Your task to perform on an android device: delete location history Image 0: 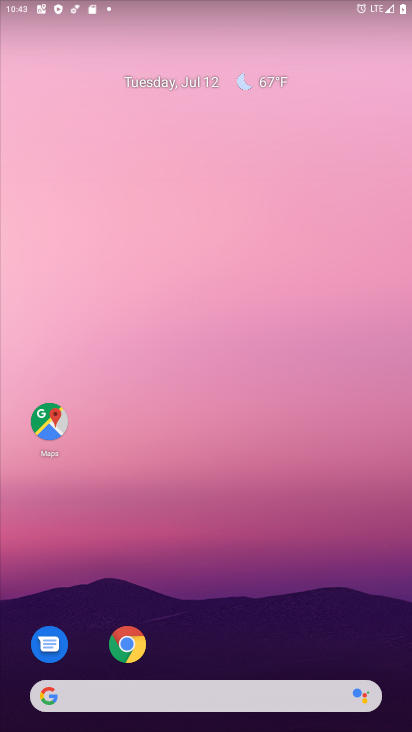
Step 0: click (197, 213)
Your task to perform on an android device: delete location history Image 1: 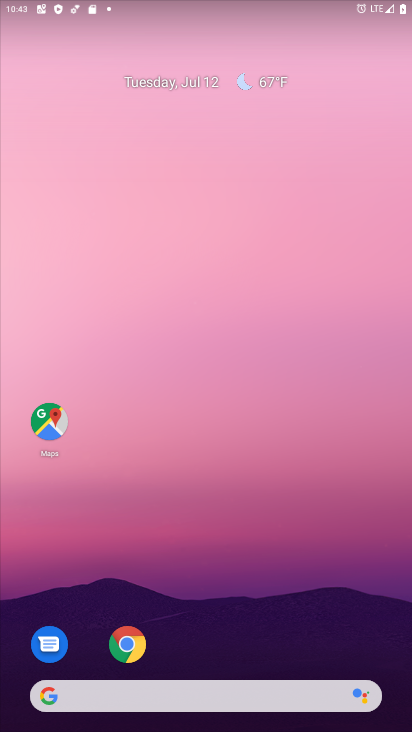
Step 1: drag from (191, 640) to (228, 302)
Your task to perform on an android device: delete location history Image 2: 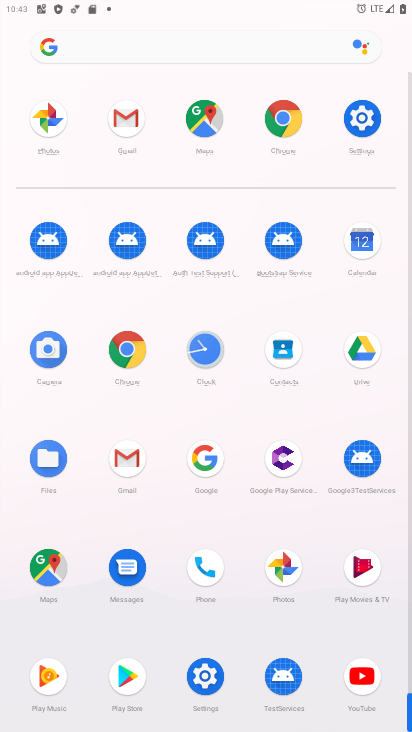
Step 2: click (198, 666)
Your task to perform on an android device: delete location history Image 3: 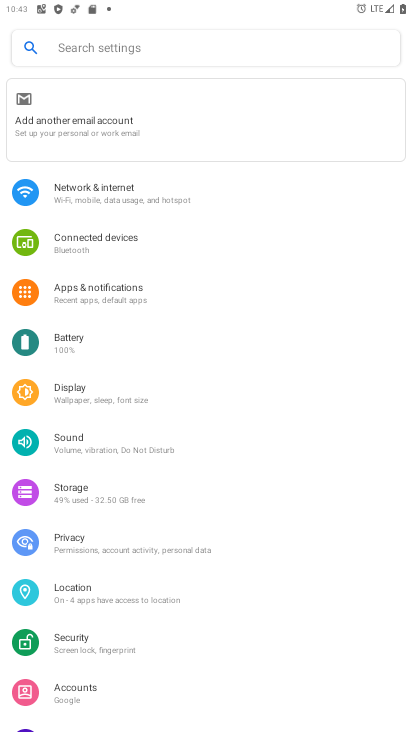
Step 3: click (86, 594)
Your task to perform on an android device: delete location history Image 4: 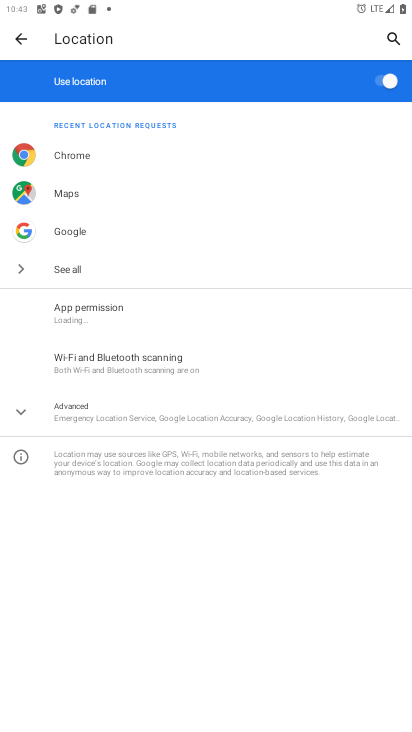
Step 4: drag from (202, 614) to (210, 369)
Your task to perform on an android device: delete location history Image 5: 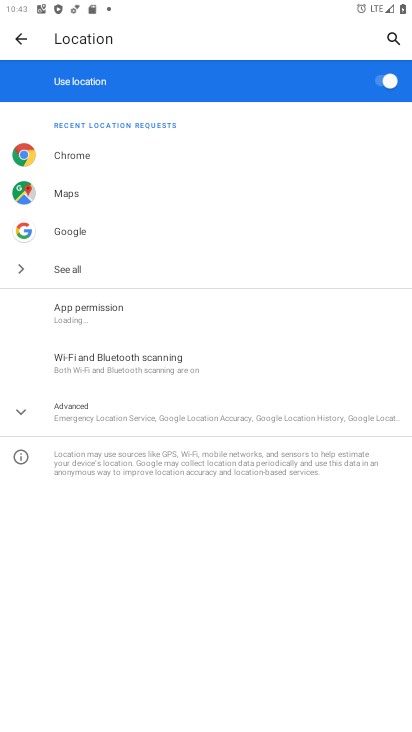
Step 5: click (83, 428)
Your task to perform on an android device: delete location history Image 6: 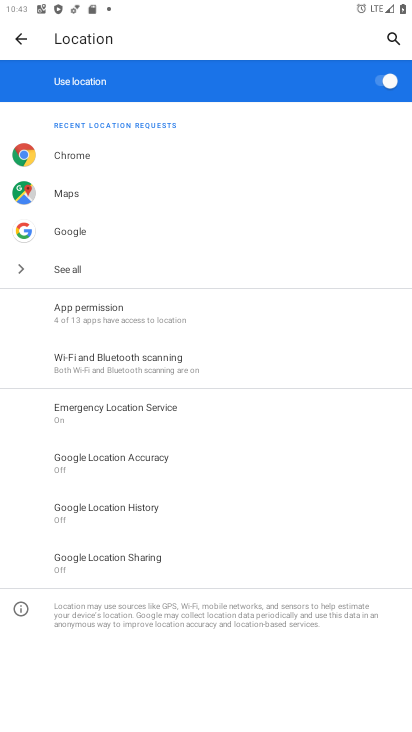
Step 6: click (157, 503)
Your task to perform on an android device: delete location history Image 7: 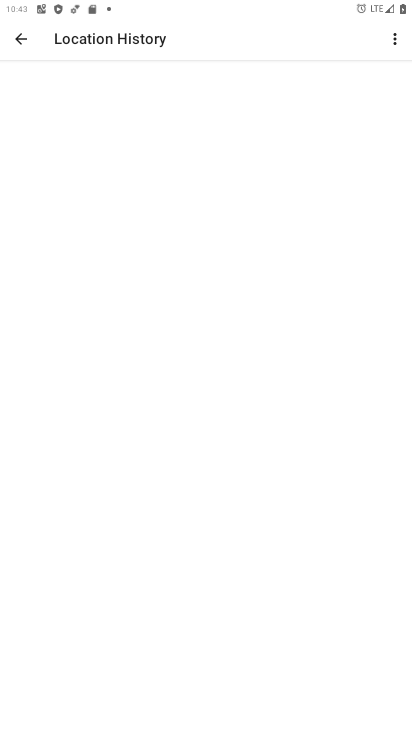
Step 7: drag from (210, 493) to (264, 203)
Your task to perform on an android device: delete location history Image 8: 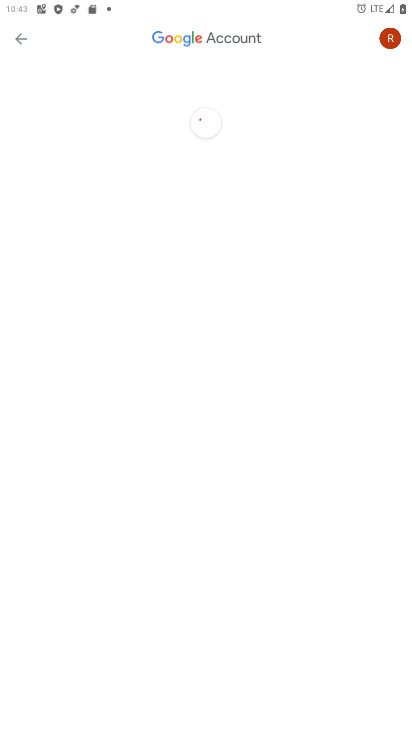
Step 8: drag from (267, 481) to (283, 288)
Your task to perform on an android device: delete location history Image 9: 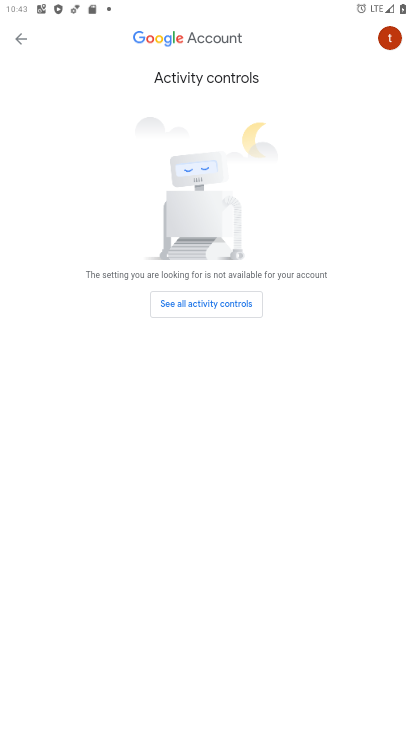
Step 9: drag from (212, 474) to (309, 327)
Your task to perform on an android device: delete location history Image 10: 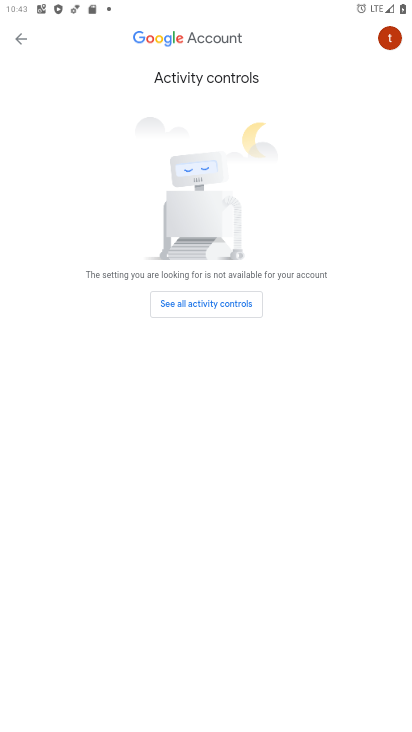
Step 10: click (195, 301)
Your task to perform on an android device: delete location history Image 11: 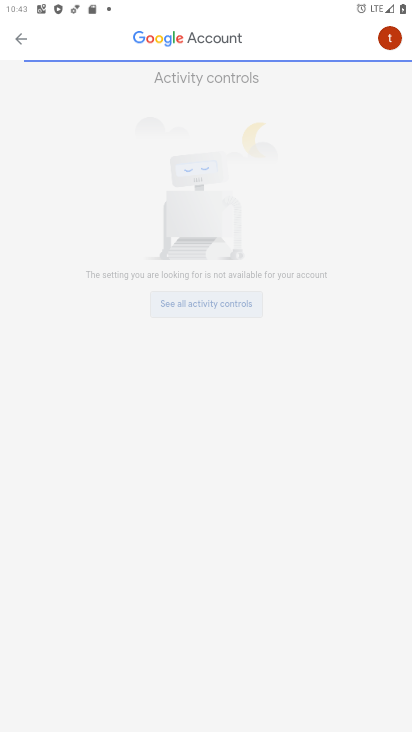
Step 11: drag from (234, 579) to (255, 119)
Your task to perform on an android device: delete location history Image 12: 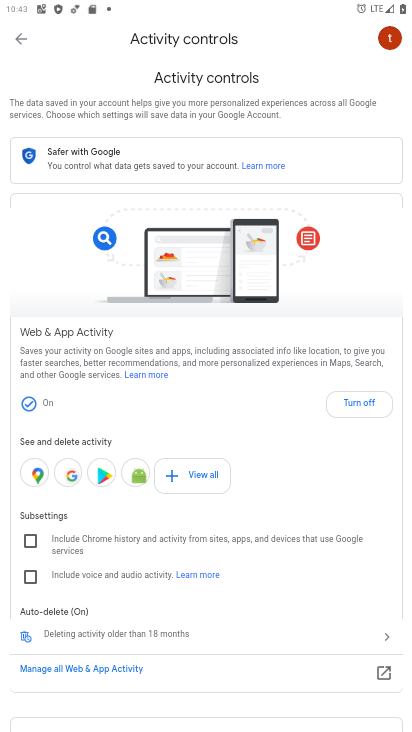
Step 12: drag from (209, 541) to (295, 114)
Your task to perform on an android device: delete location history Image 13: 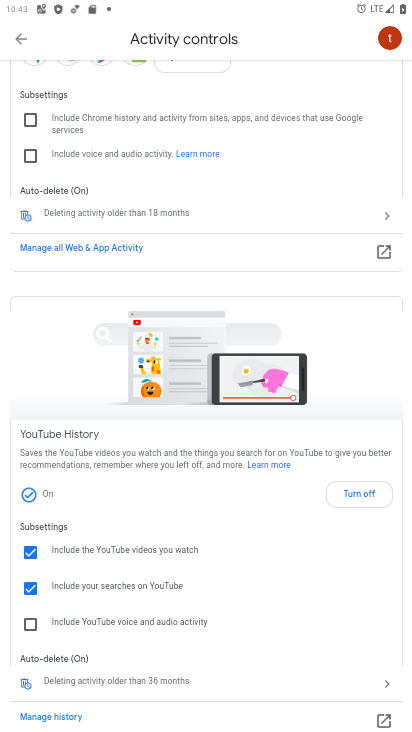
Step 13: click (49, 684)
Your task to perform on an android device: delete location history Image 14: 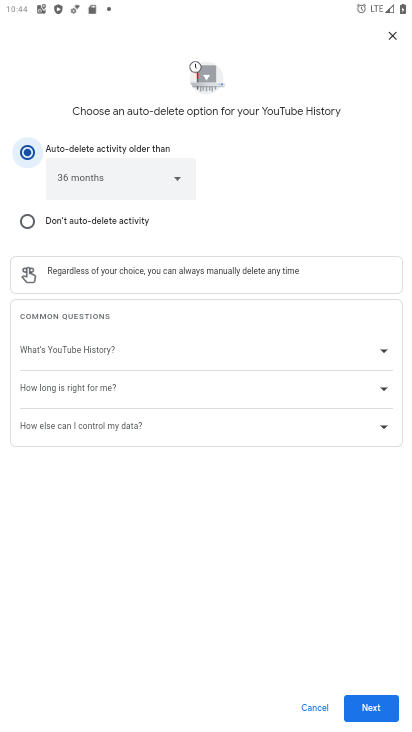
Step 14: drag from (176, 640) to (237, 386)
Your task to perform on an android device: delete location history Image 15: 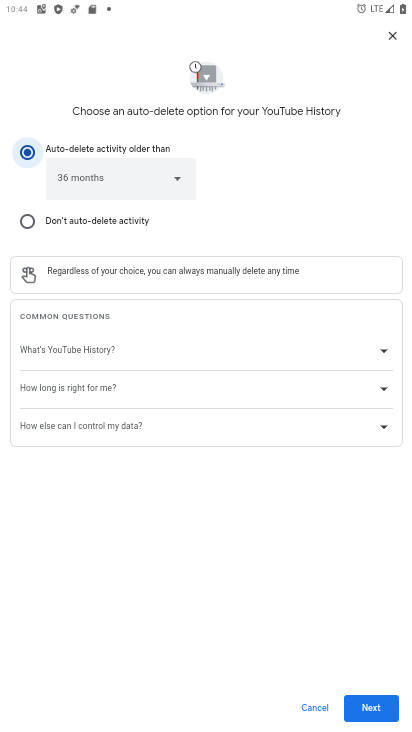
Step 15: click (366, 715)
Your task to perform on an android device: delete location history Image 16: 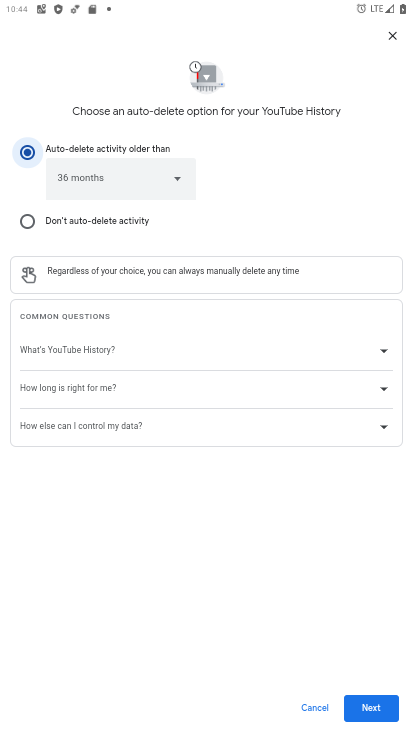
Step 16: click (366, 715)
Your task to perform on an android device: delete location history Image 17: 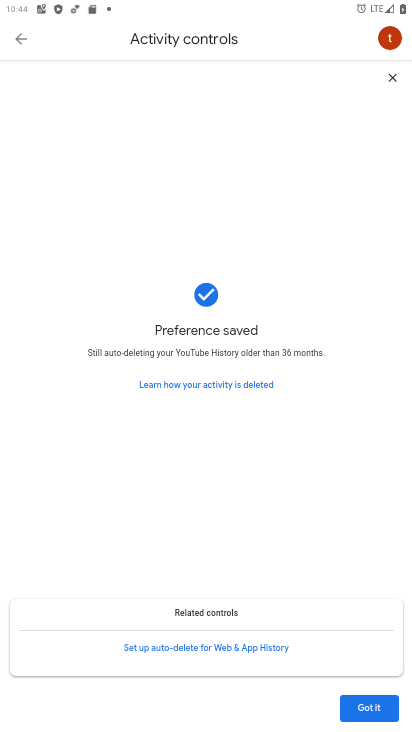
Step 17: drag from (165, 621) to (318, 261)
Your task to perform on an android device: delete location history Image 18: 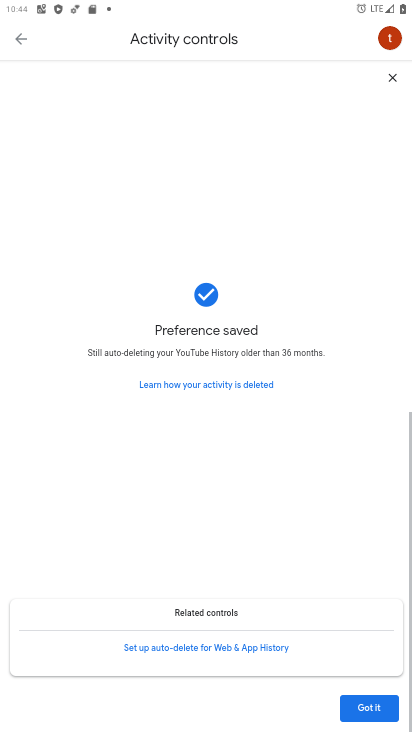
Step 18: click (363, 720)
Your task to perform on an android device: delete location history Image 19: 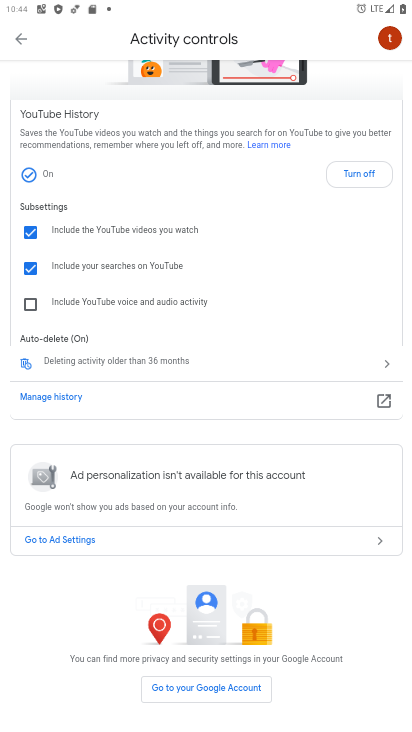
Step 19: task complete